Your task to perform on an android device: Check the settings for the Instagram app Image 0: 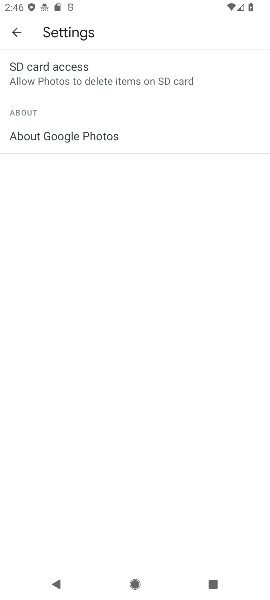
Step 0: press home button
Your task to perform on an android device: Check the settings for the Instagram app Image 1: 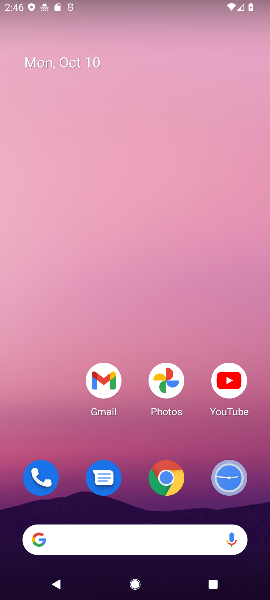
Step 1: drag from (135, 505) to (115, 262)
Your task to perform on an android device: Check the settings for the Instagram app Image 2: 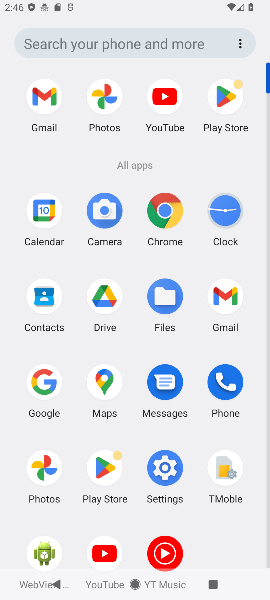
Step 2: click (108, 459)
Your task to perform on an android device: Check the settings for the Instagram app Image 3: 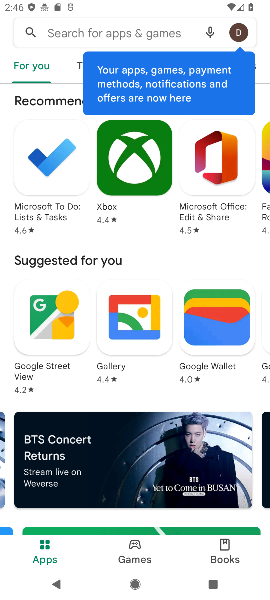
Step 3: click (115, 30)
Your task to perform on an android device: Check the settings for the Instagram app Image 4: 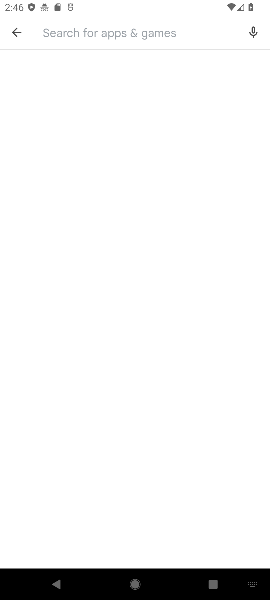
Step 4: type "instagram"
Your task to perform on an android device: Check the settings for the Instagram app Image 5: 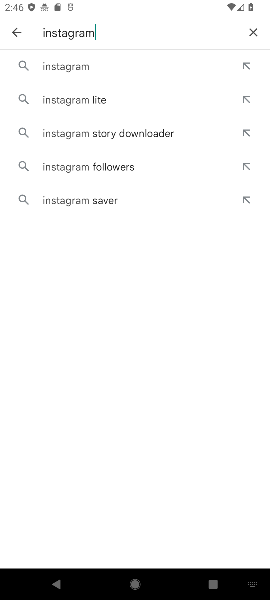
Step 5: click (57, 62)
Your task to perform on an android device: Check the settings for the Instagram app Image 6: 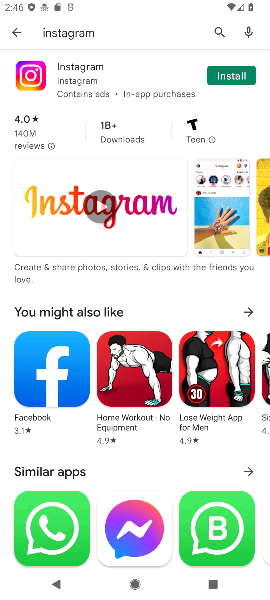
Step 6: click (238, 78)
Your task to perform on an android device: Check the settings for the Instagram app Image 7: 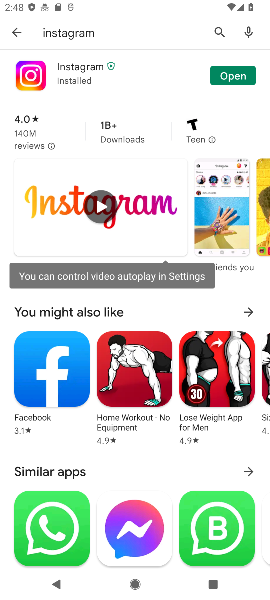
Step 7: click (230, 74)
Your task to perform on an android device: Check the settings for the Instagram app Image 8: 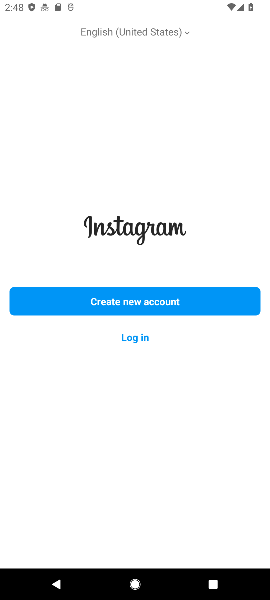
Step 8: click (166, 303)
Your task to perform on an android device: Check the settings for the Instagram app Image 9: 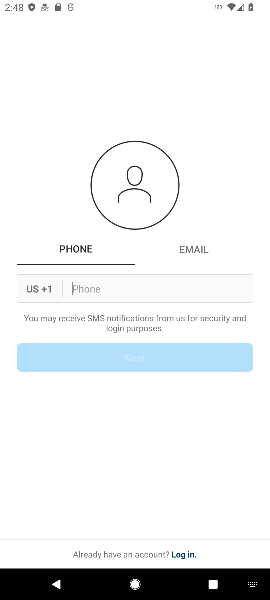
Step 9: click (203, 245)
Your task to perform on an android device: Check the settings for the Instagram app Image 10: 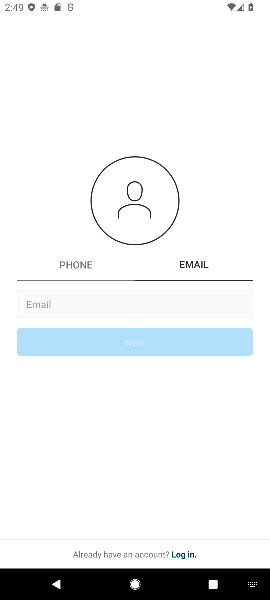
Step 10: task complete